Your task to perform on an android device: Go to calendar. Show me events next week Image 0: 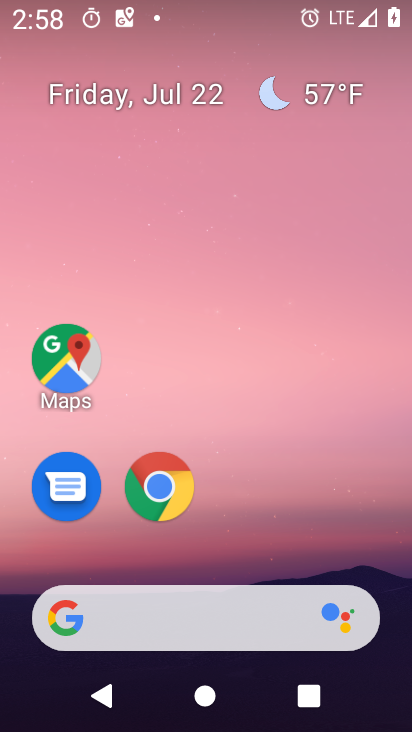
Step 0: press home button
Your task to perform on an android device: Go to calendar. Show me events next week Image 1: 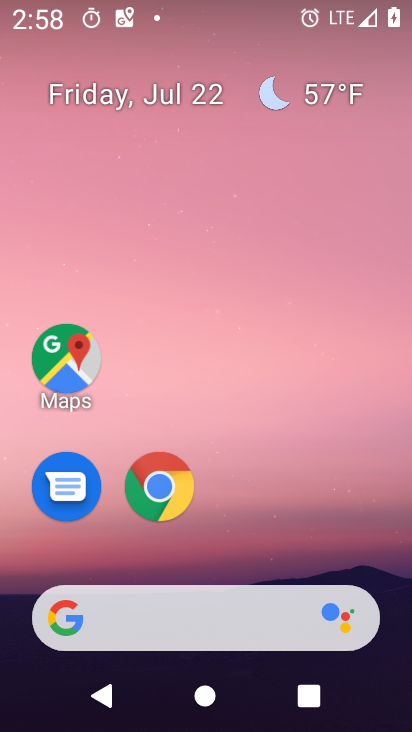
Step 1: drag from (384, 529) to (385, 114)
Your task to perform on an android device: Go to calendar. Show me events next week Image 2: 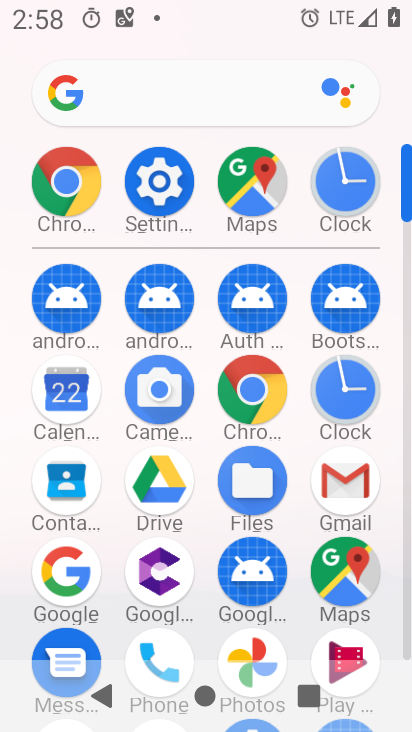
Step 2: click (75, 390)
Your task to perform on an android device: Go to calendar. Show me events next week Image 3: 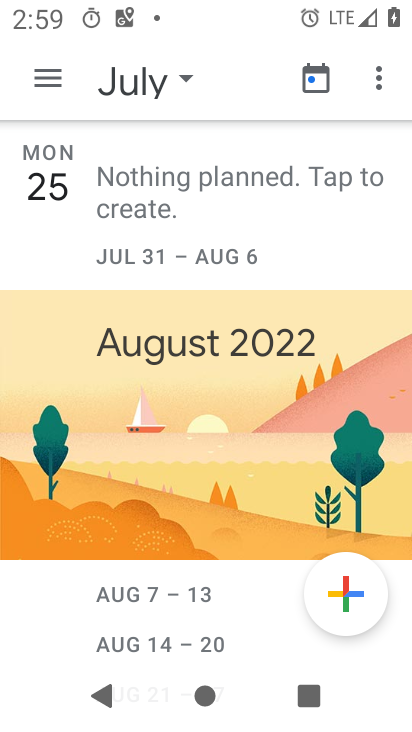
Step 3: task complete